Your task to perform on an android device: turn pop-ups off in chrome Image 0: 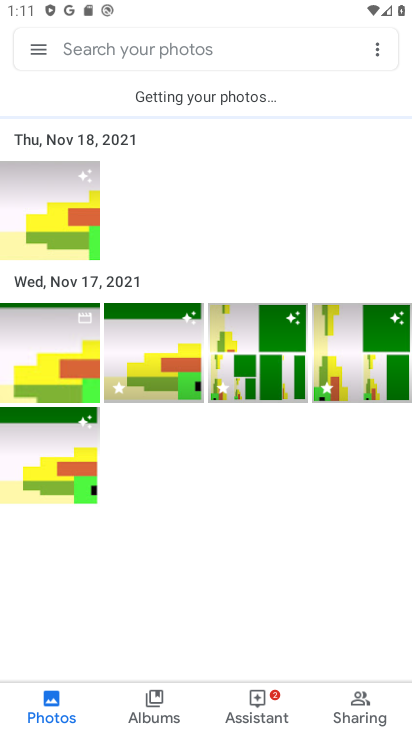
Step 0: press home button
Your task to perform on an android device: turn pop-ups off in chrome Image 1: 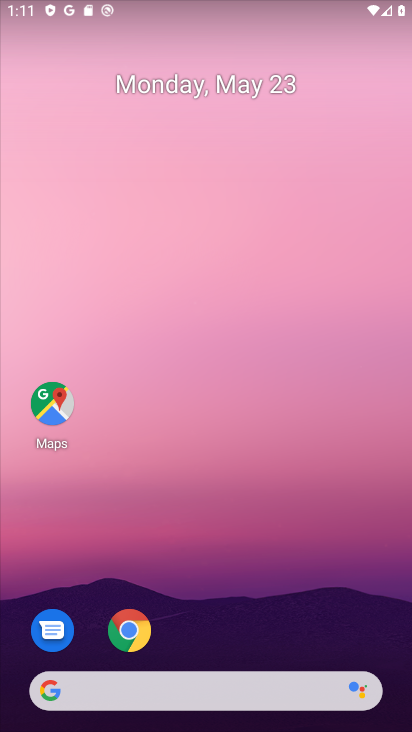
Step 1: drag from (257, 591) to (158, 110)
Your task to perform on an android device: turn pop-ups off in chrome Image 2: 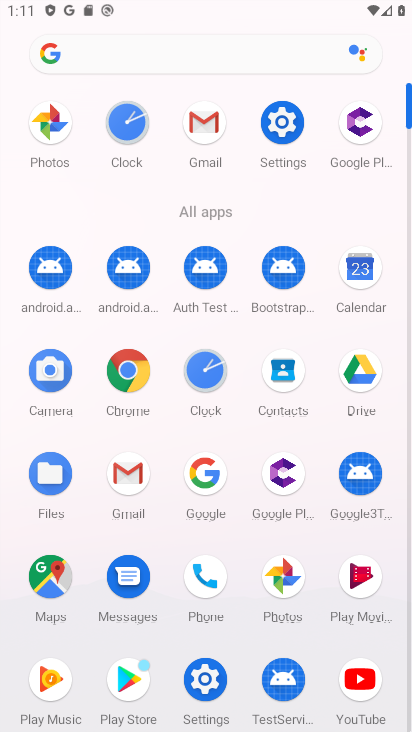
Step 2: click (126, 365)
Your task to perform on an android device: turn pop-ups off in chrome Image 3: 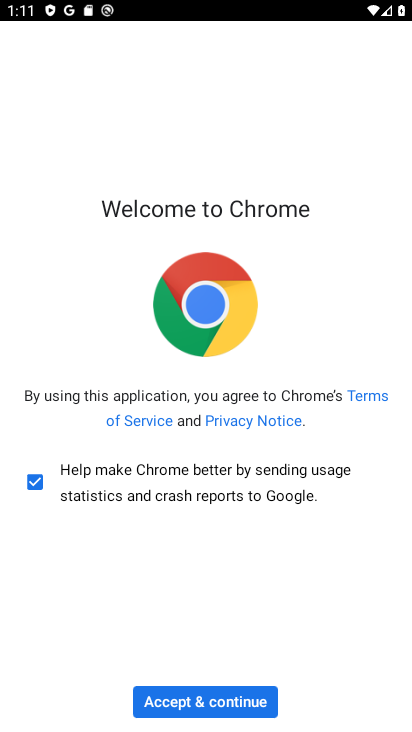
Step 3: click (192, 706)
Your task to perform on an android device: turn pop-ups off in chrome Image 4: 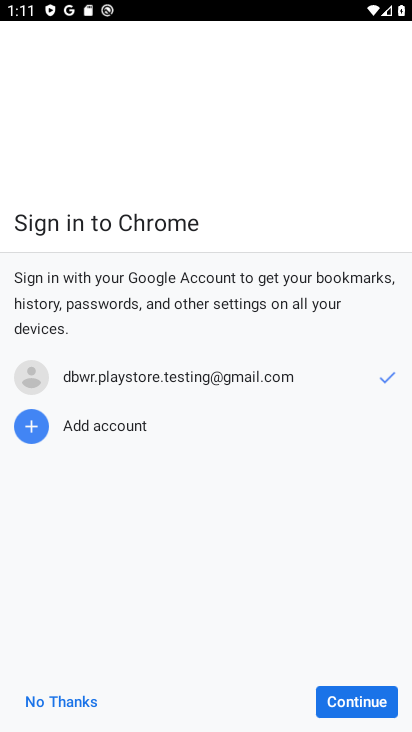
Step 4: click (341, 695)
Your task to perform on an android device: turn pop-ups off in chrome Image 5: 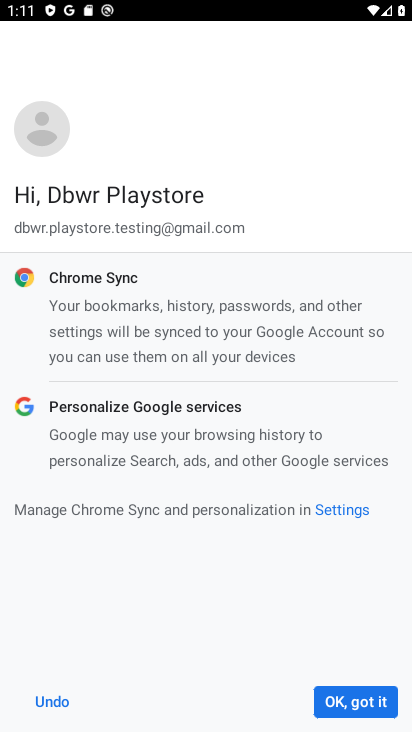
Step 5: click (361, 700)
Your task to perform on an android device: turn pop-ups off in chrome Image 6: 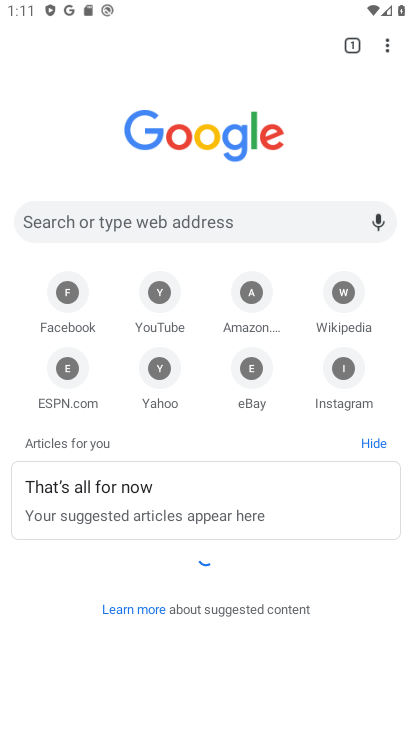
Step 6: click (382, 43)
Your task to perform on an android device: turn pop-ups off in chrome Image 7: 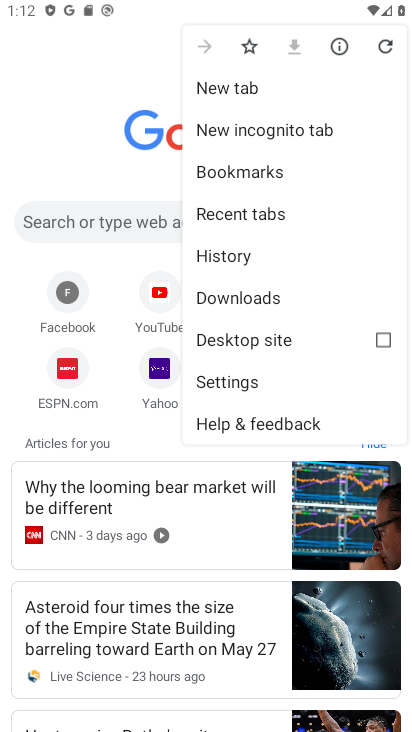
Step 7: click (254, 379)
Your task to perform on an android device: turn pop-ups off in chrome Image 8: 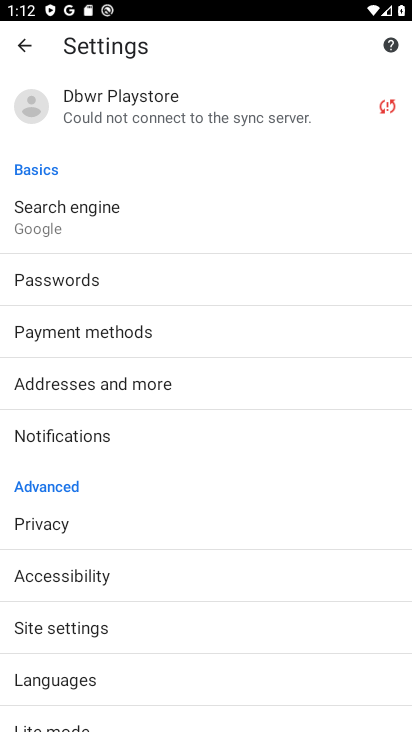
Step 8: click (74, 623)
Your task to perform on an android device: turn pop-ups off in chrome Image 9: 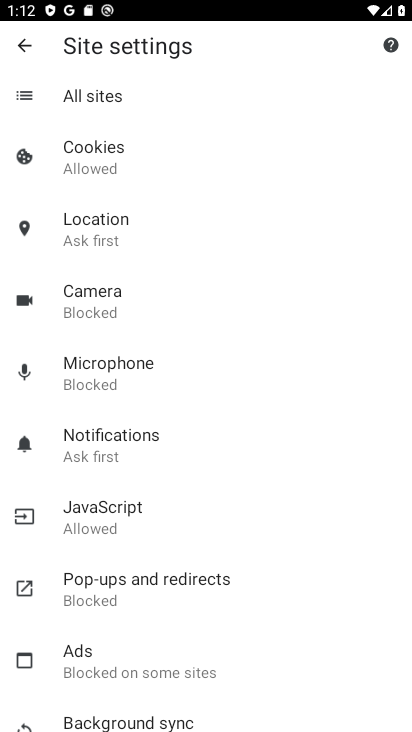
Step 9: click (101, 577)
Your task to perform on an android device: turn pop-ups off in chrome Image 10: 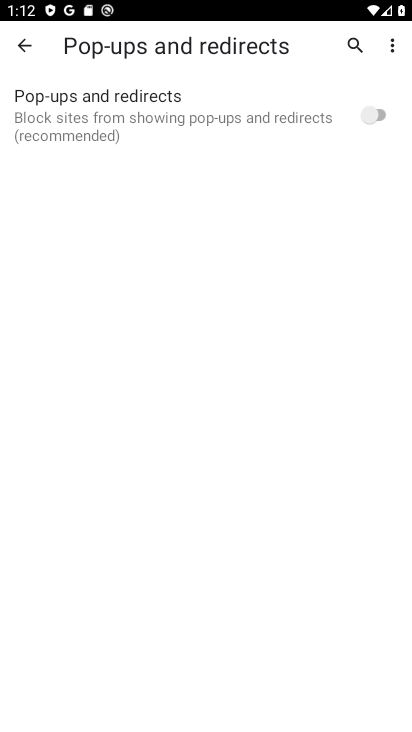
Step 10: task complete